Your task to perform on an android device: Turn off the flashlight Image 0: 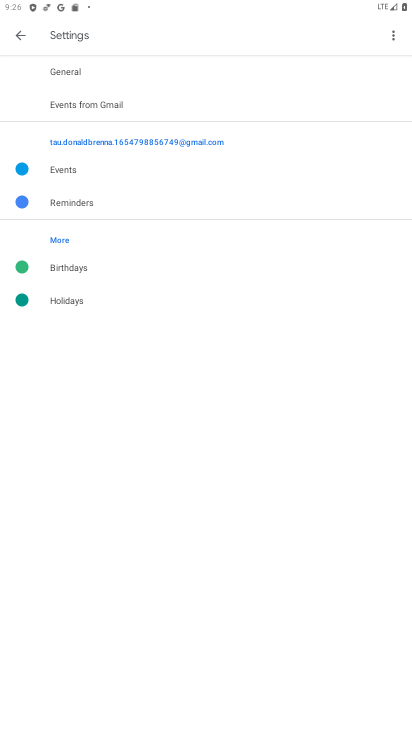
Step 0: drag from (350, 84) to (235, 704)
Your task to perform on an android device: Turn off the flashlight Image 1: 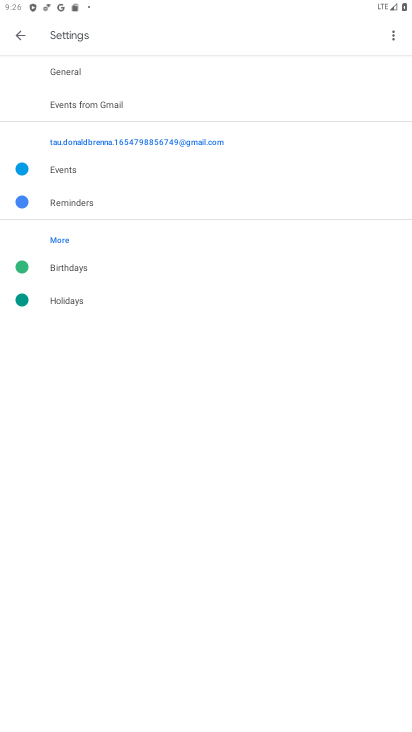
Step 1: drag from (256, 4) to (202, 537)
Your task to perform on an android device: Turn off the flashlight Image 2: 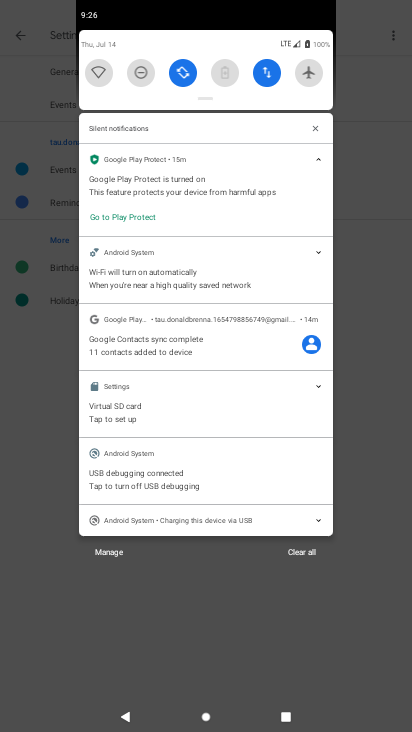
Step 2: drag from (204, 103) to (183, 701)
Your task to perform on an android device: Turn off the flashlight Image 3: 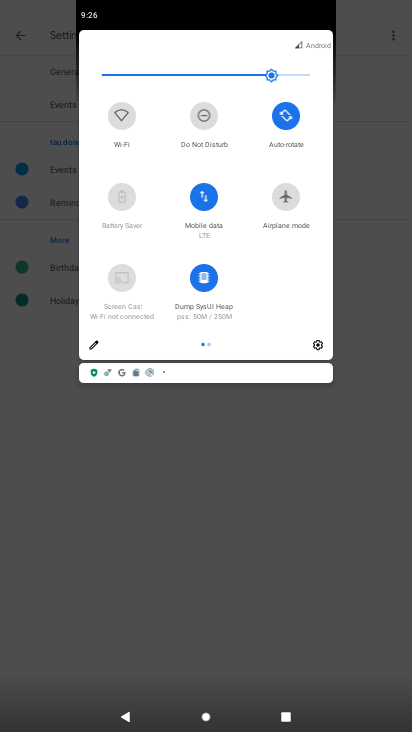
Step 3: click (96, 344)
Your task to perform on an android device: Turn off the flashlight Image 4: 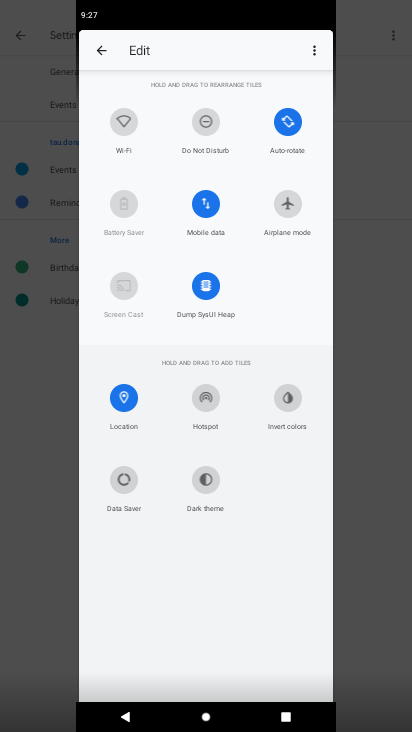
Step 4: task complete